Your task to perform on an android device: toggle javascript in the chrome app Image 0: 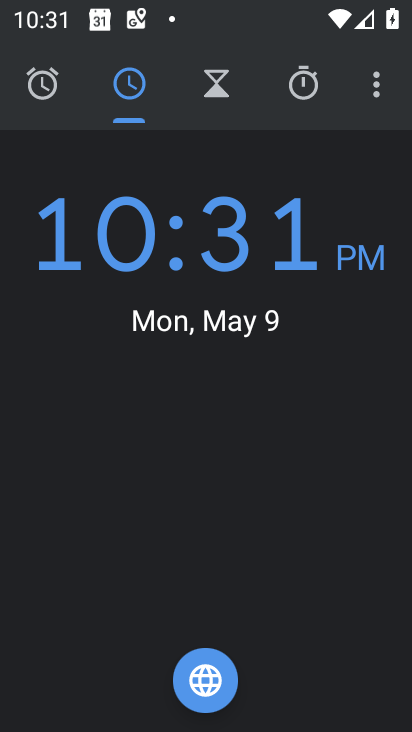
Step 0: press home button
Your task to perform on an android device: toggle javascript in the chrome app Image 1: 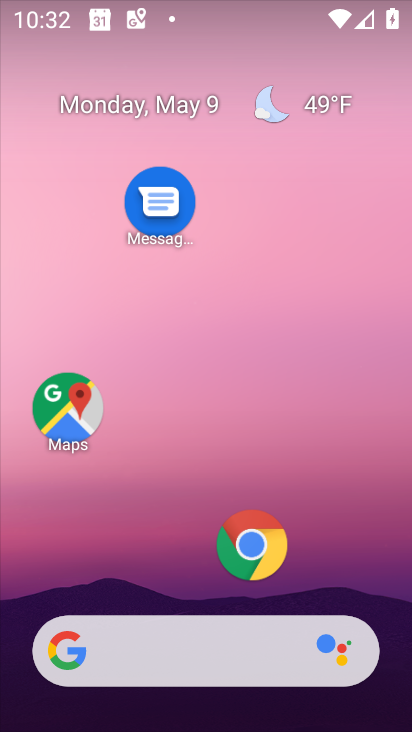
Step 1: click (274, 543)
Your task to perform on an android device: toggle javascript in the chrome app Image 2: 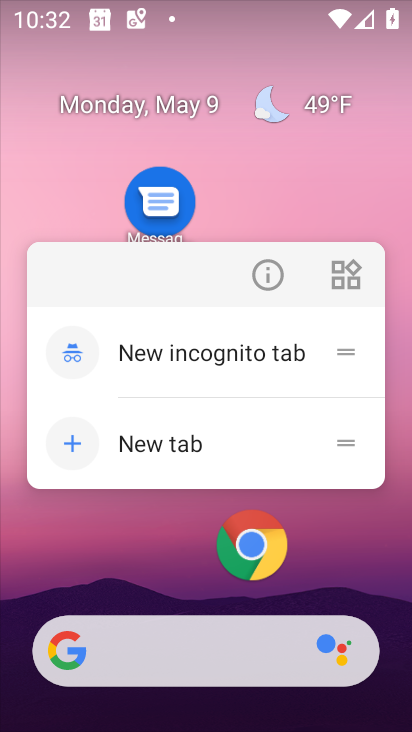
Step 2: click (255, 549)
Your task to perform on an android device: toggle javascript in the chrome app Image 3: 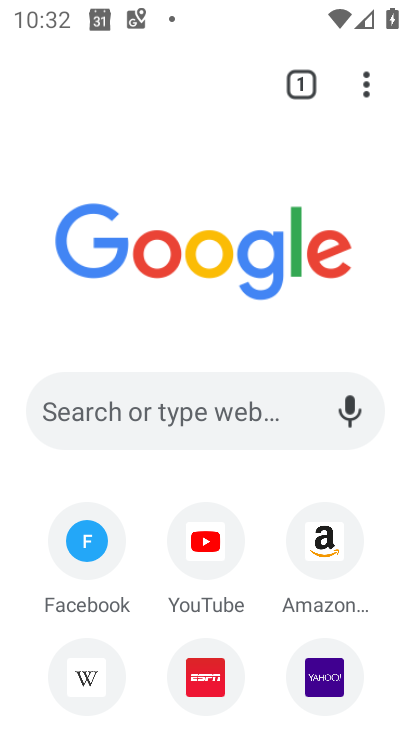
Step 3: click (373, 88)
Your task to perform on an android device: toggle javascript in the chrome app Image 4: 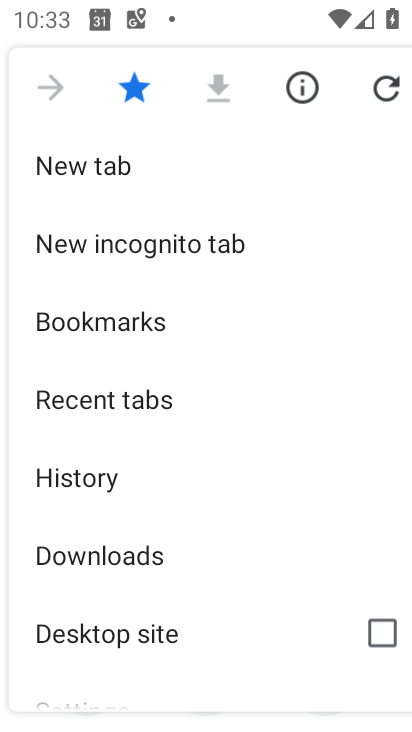
Step 4: drag from (162, 556) to (175, 253)
Your task to perform on an android device: toggle javascript in the chrome app Image 5: 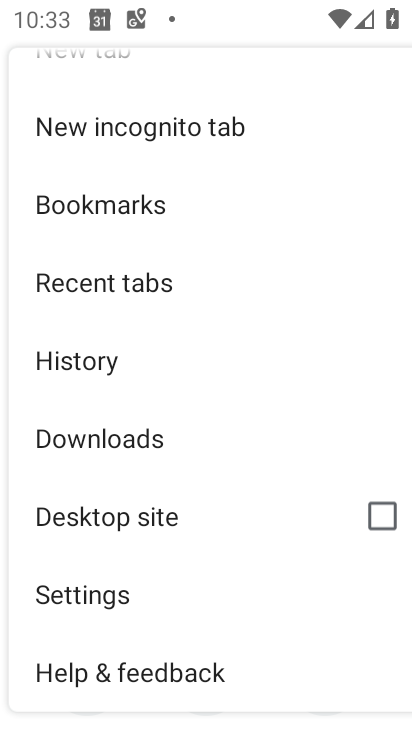
Step 5: click (127, 602)
Your task to perform on an android device: toggle javascript in the chrome app Image 6: 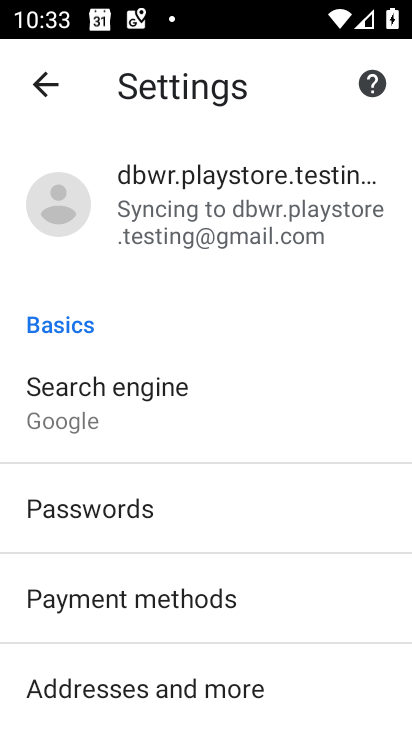
Step 6: drag from (68, 656) to (116, 463)
Your task to perform on an android device: toggle javascript in the chrome app Image 7: 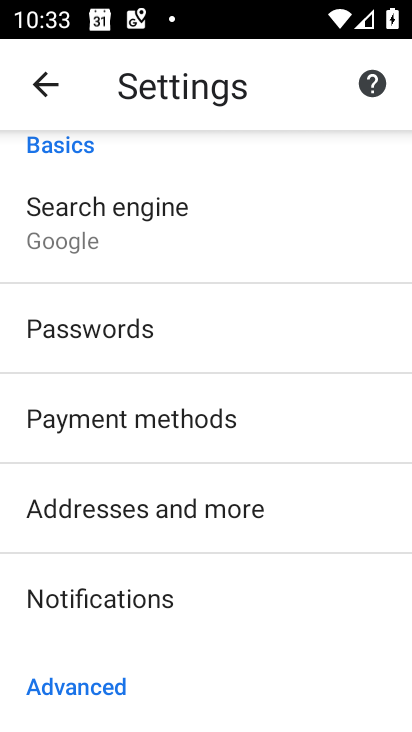
Step 7: drag from (171, 633) to (110, 314)
Your task to perform on an android device: toggle javascript in the chrome app Image 8: 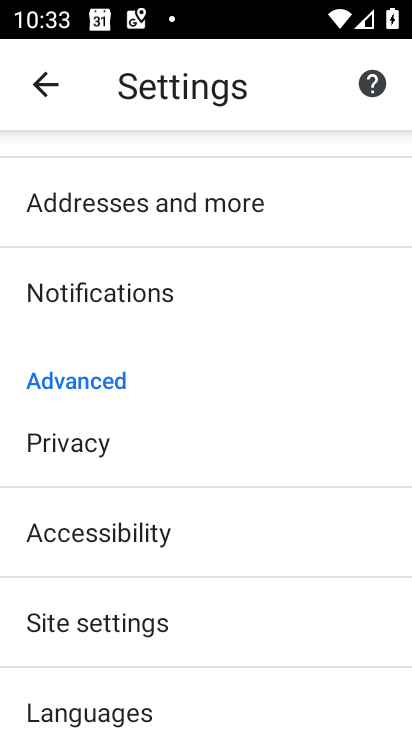
Step 8: click (167, 629)
Your task to perform on an android device: toggle javascript in the chrome app Image 9: 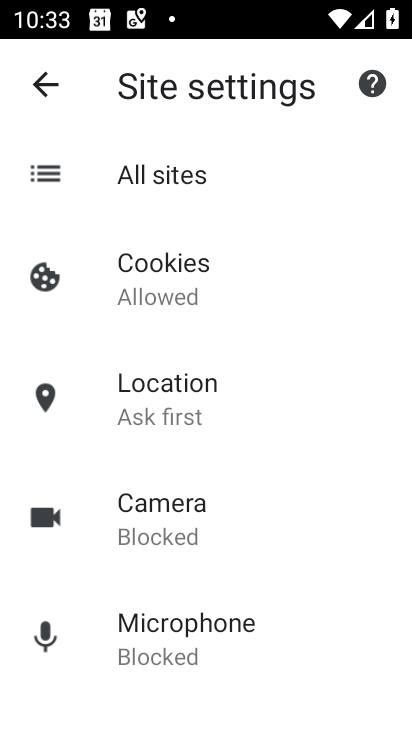
Step 9: drag from (168, 626) to (161, 255)
Your task to perform on an android device: toggle javascript in the chrome app Image 10: 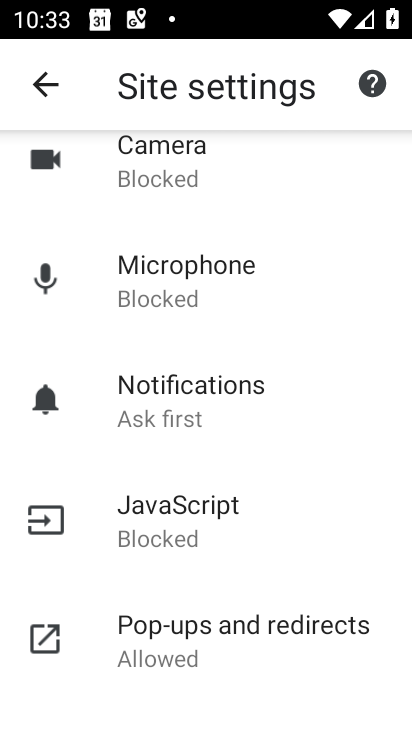
Step 10: click (173, 545)
Your task to perform on an android device: toggle javascript in the chrome app Image 11: 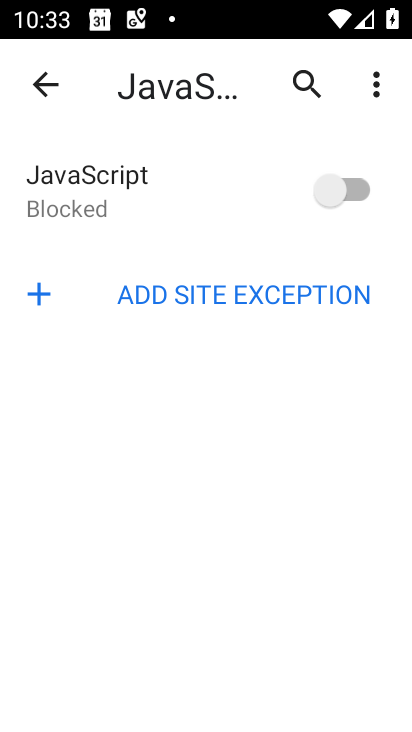
Step 11: click (334, 186)
Your task to perform on an android device: toggle javascript in the chrome app Image 12: 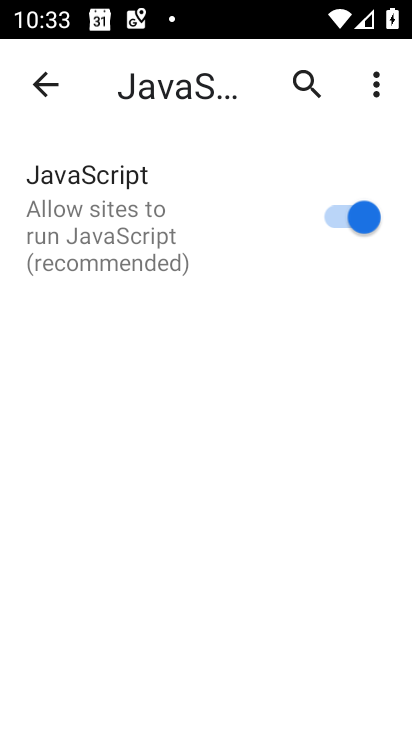
Step 12: task complete